Your task to perform on an android device: turn on javascript in the chrome app Image 0: 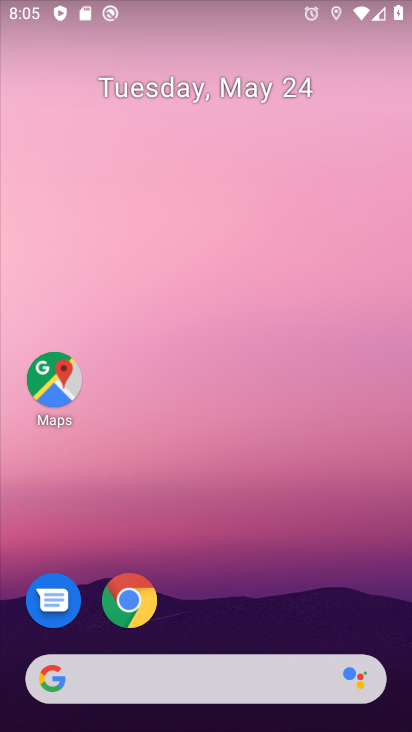
Step 0: click (124, 605)
Your task to perform on an android device: turn on javascript in the chrome app Image 1: 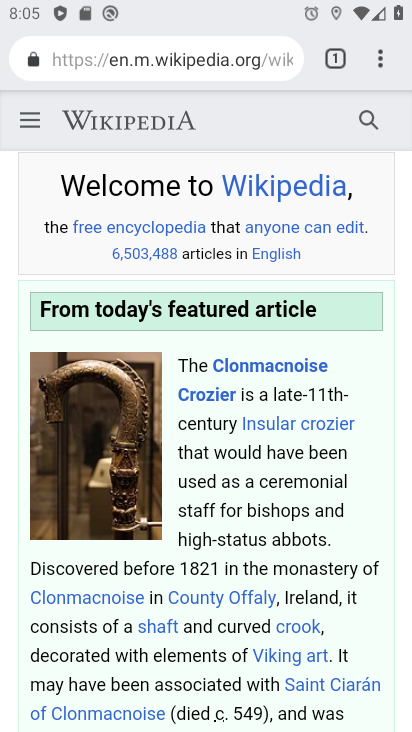
Step 1: click (383, 64)
Your task to perform on an android device: turn on javascript in the chrome app Image 2: 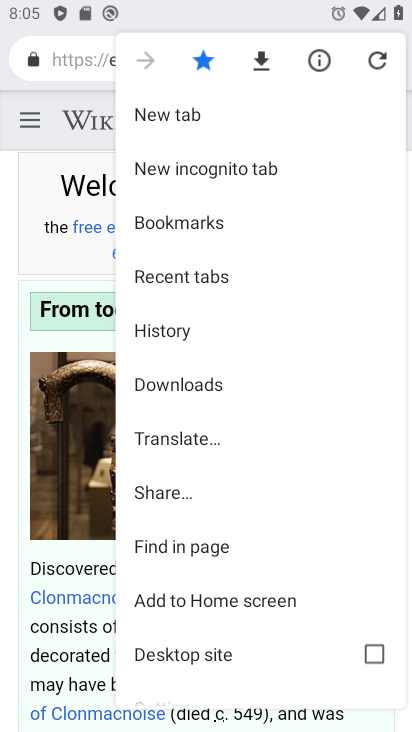
Step 2: drag from (210, 628) to (210, 351)
Your task to perform on an android device: turn on javascript in the chrome app Image 3: 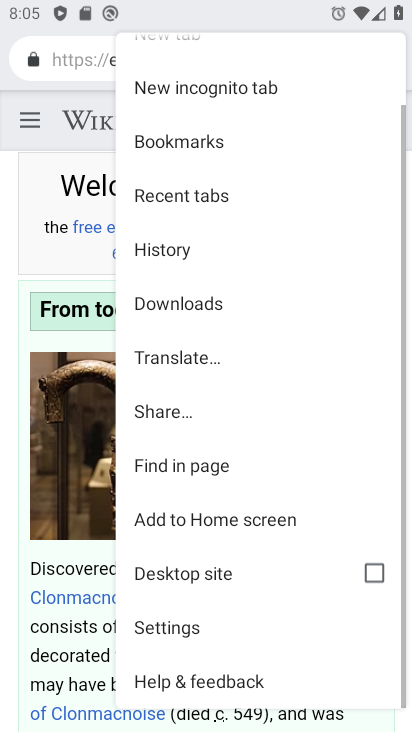
Step 3: click (178, 629)
Your task to perform on an android device: turn on javascript in the chrome app Image 4: 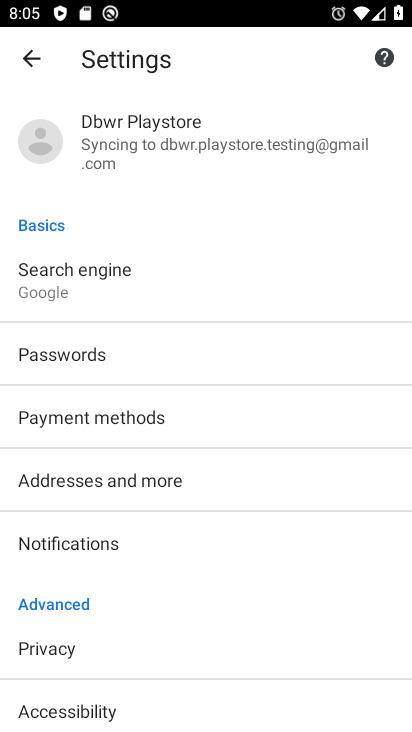
Step 4: drag from (170, 664) to (162, 371)
Your task to perform on an android device: turn on javascript in the chrome app Image 5: 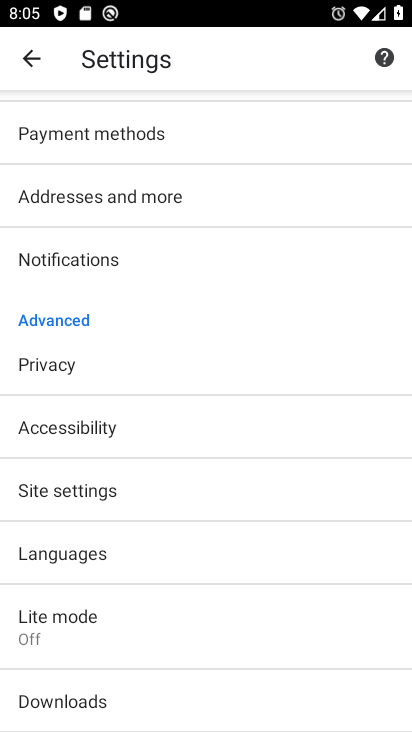
Step 5: click (94, 481)
Your task to perform on an android device: turn on javascript in the chrome app Image 6: 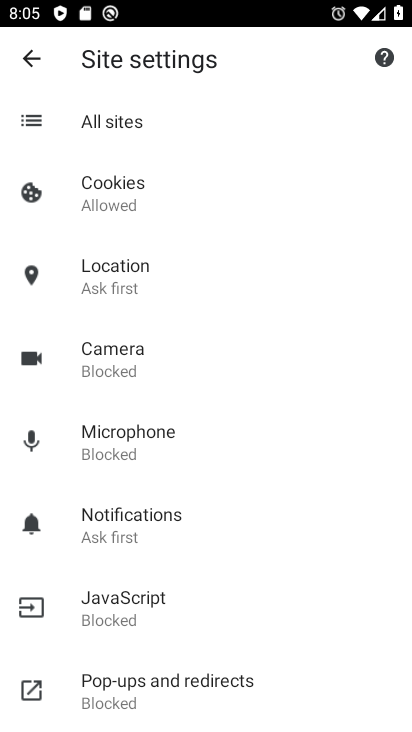
Step 6: click (134, 599)
Your task to perform on an android device: turn on javascript in the chrome app Image 7: 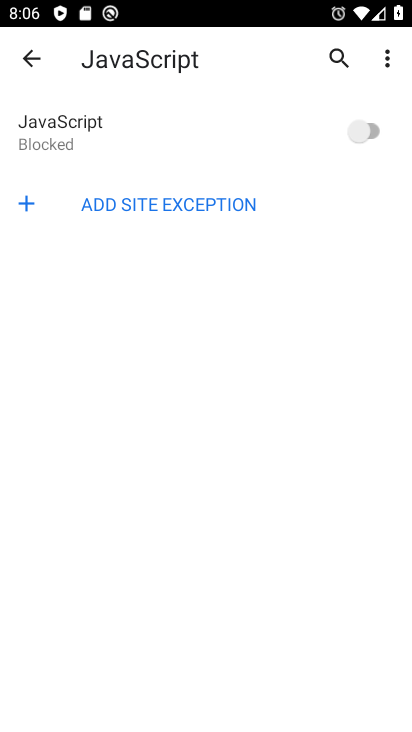
Step 7: click (375, 127)
Your task to perform on an android device: turn on javascript in the chrome app Image 8: 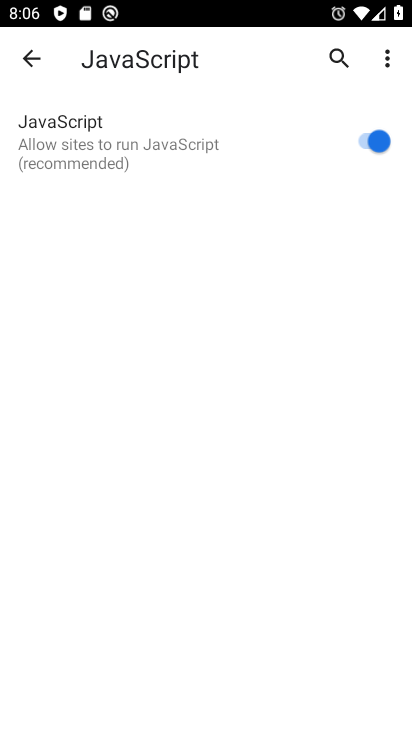
Step 8: task complete